Your task to perform on an android device: Open Chrome and go to settings Image 0: 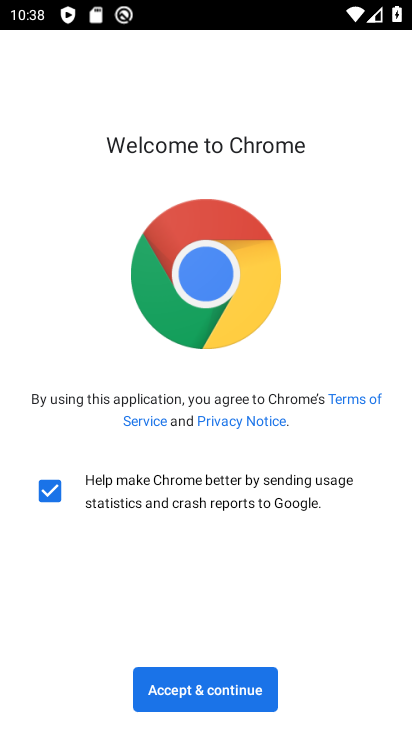
Step 0: click (188, 692)
Your task to perform on an android device: Open Chrome and go to settings Image 1: 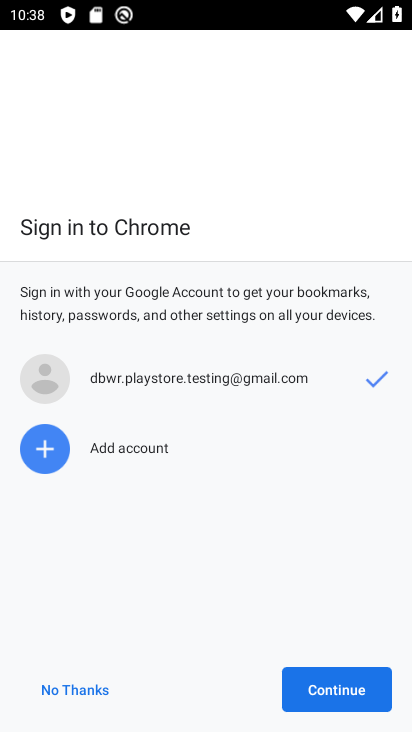
Step 1: click (344, 695)
Your task to perform on an android device: Open Chrome and go to settings Image 2: 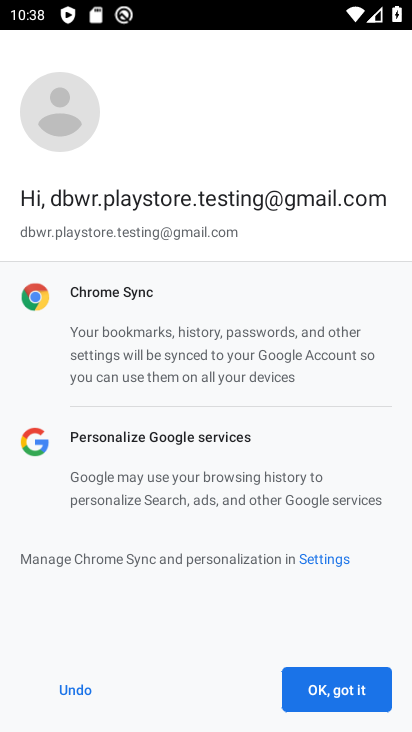
Step 2: click (342, 692)
Your task to perform on an android device: Open Chrome and go to settings Image 3: 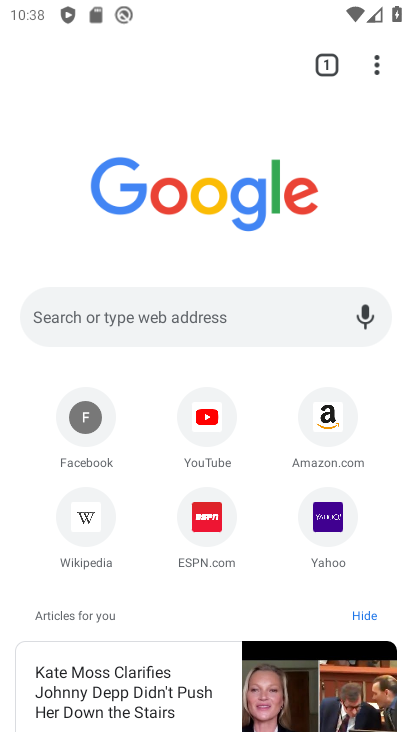
Step 3: task complete